Your task to perform on an android device: Open the web browser Image 0: 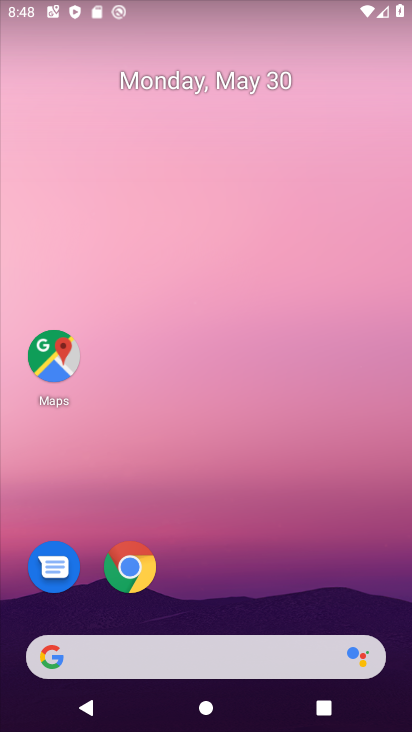
Step 0: click (132, 661)
Your task to perform on an android device: Open the web browser Image 1: 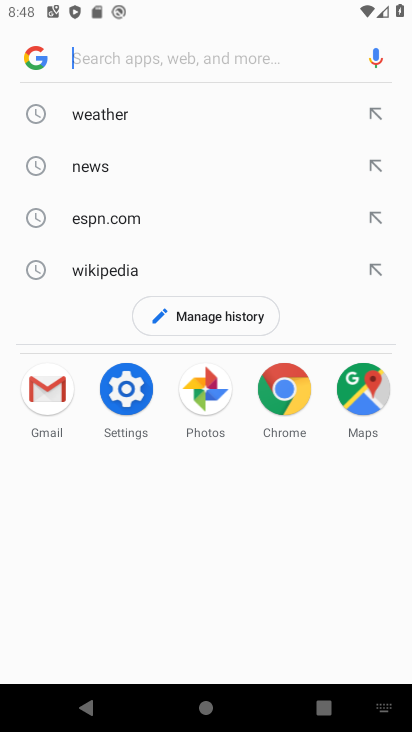
Step 1: task complete